Your task to perform on an android device: turn off javascript in the chrome app Image 0: 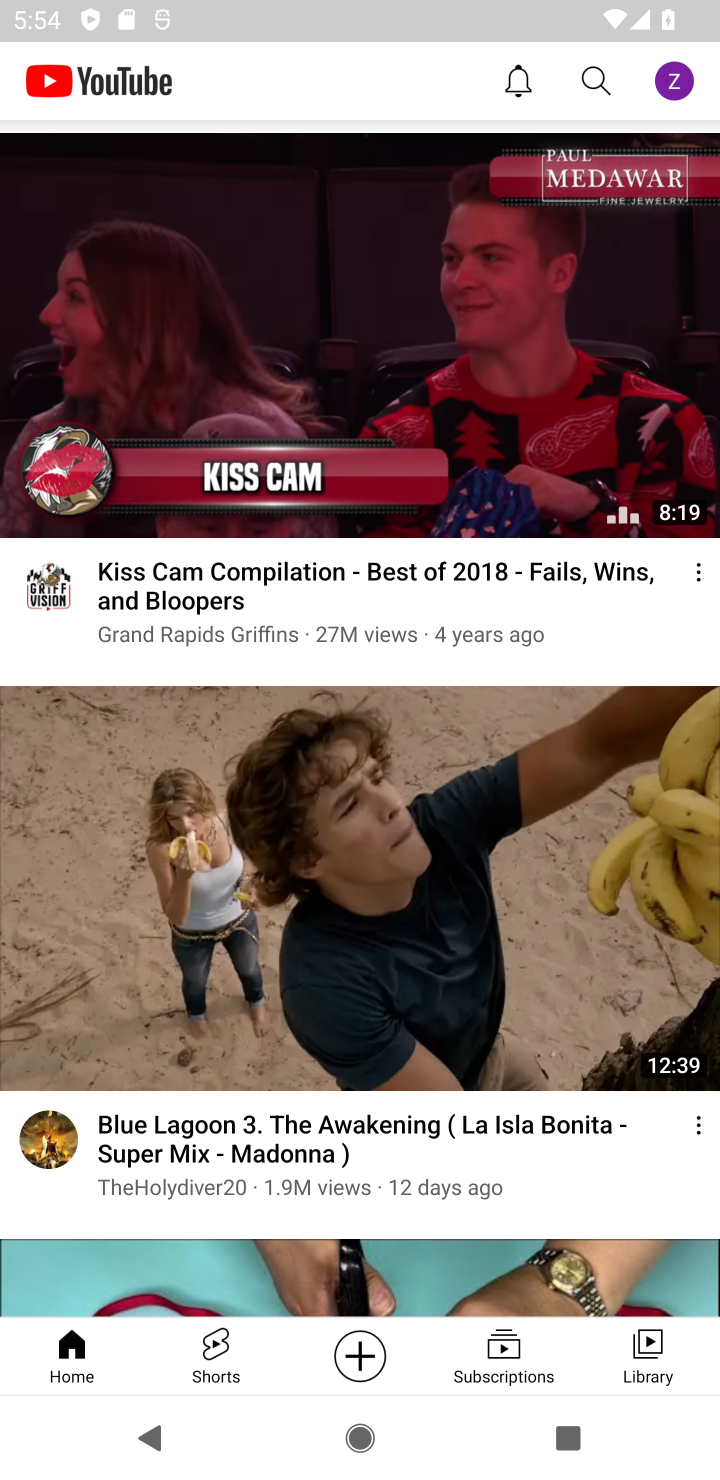
Step 0: press home button
Your task to perform on an android device: turn off javascript in the chrome app Image 1: 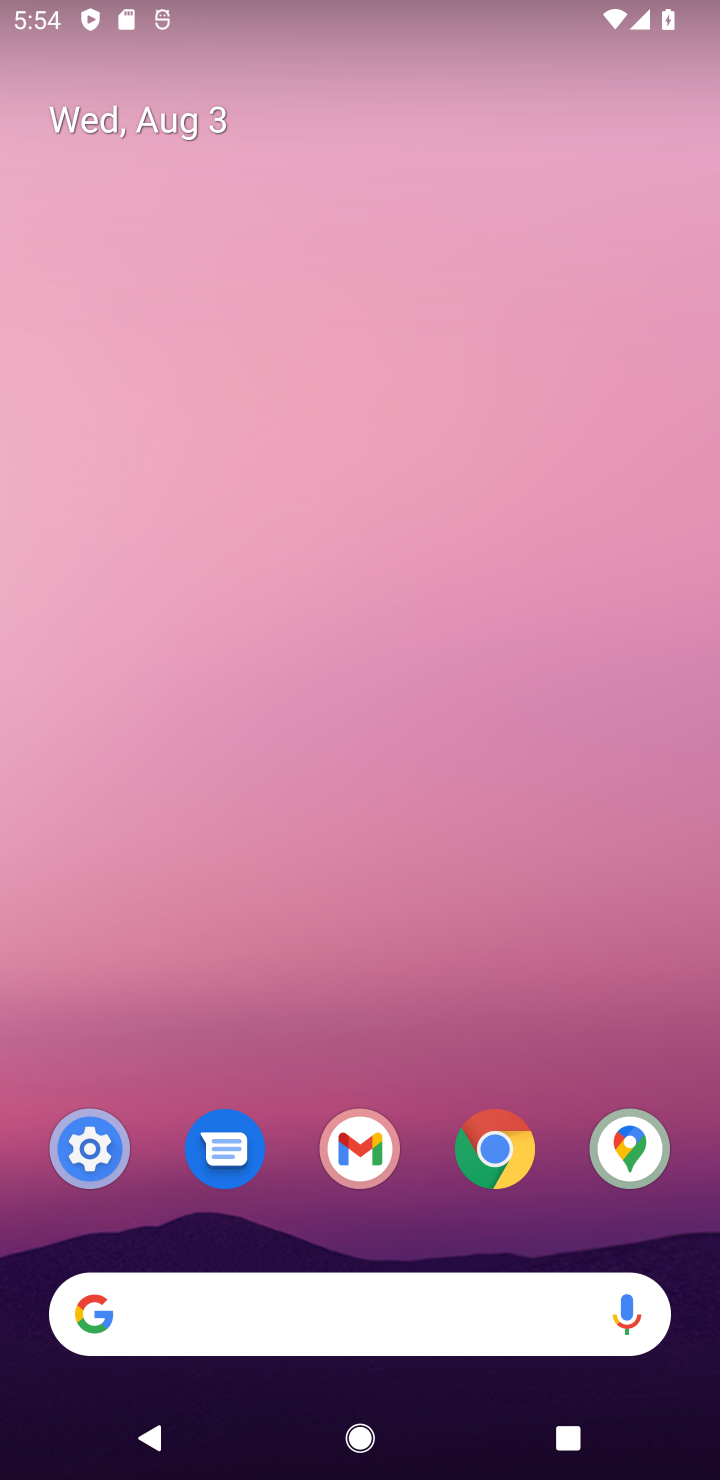
Step 1: click (501, 1156)
Your task to perform on an android device: turn off javascript in the chrome app Image 2: 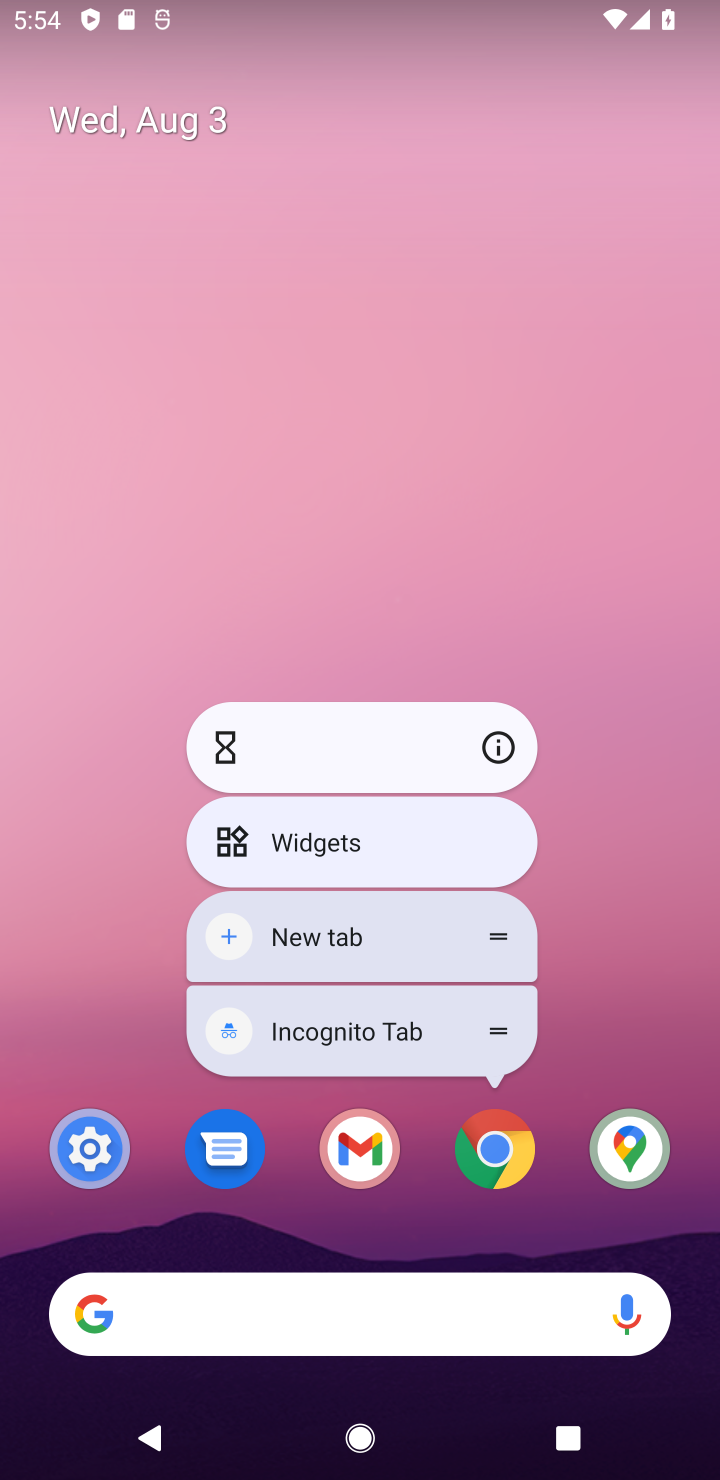
Step 2: click (519, 1172)
Your task to perform on an android device: turn off javascript in the chrome app Image 3: 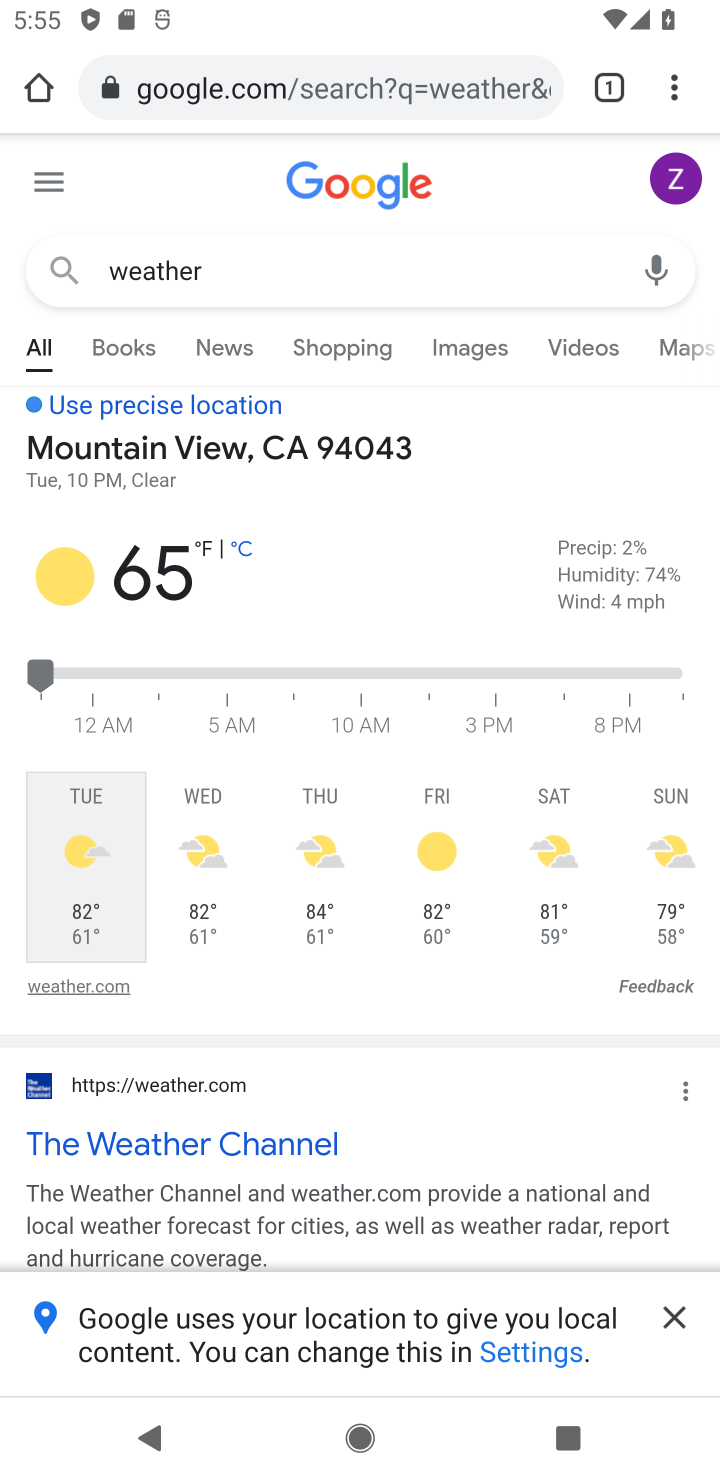
Step 3: drag from (684, 79) to (422, 1073)
Your task to perform on an android device: turn off javascript in the chrome app Image 4: 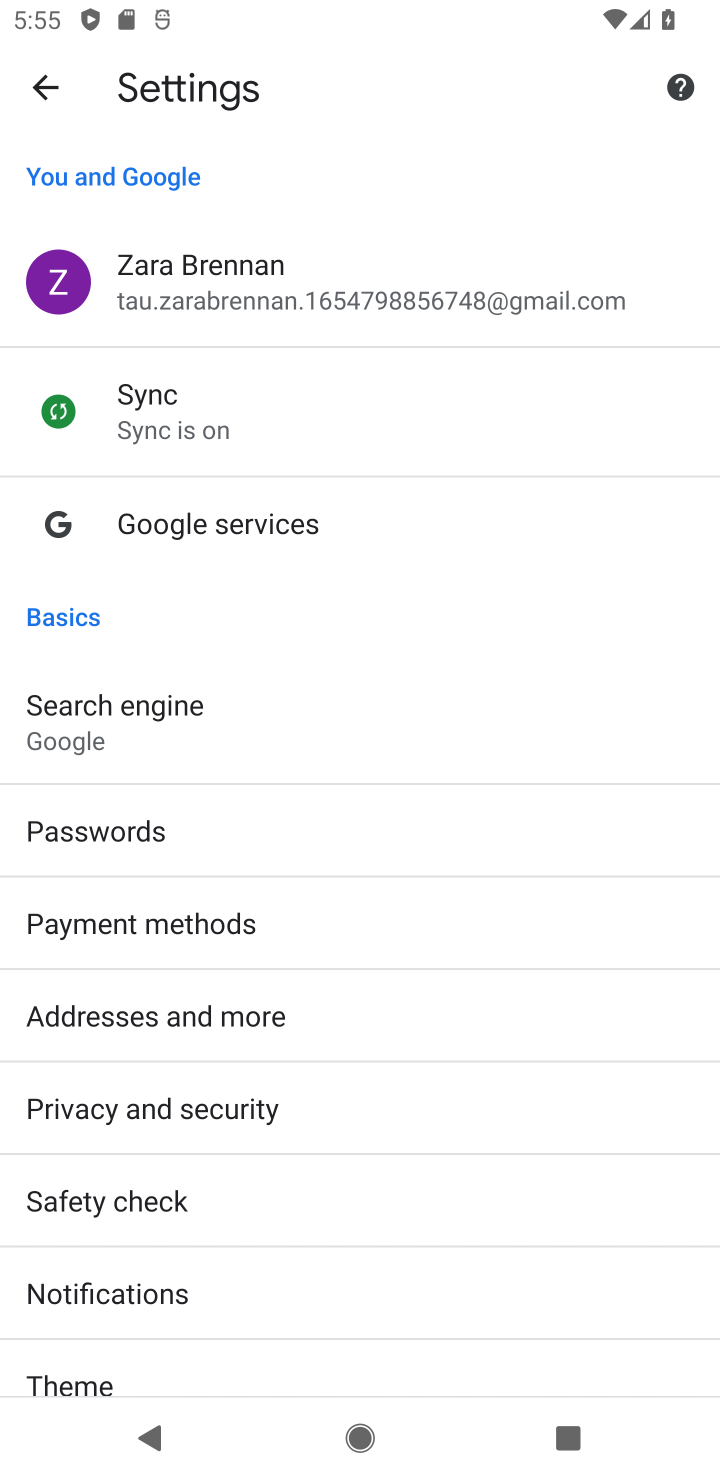
Step 4: drag from (226, 1155) to (56, 0)
Your task to perform on an android device: turn off javascript in the chrome app Image 5: 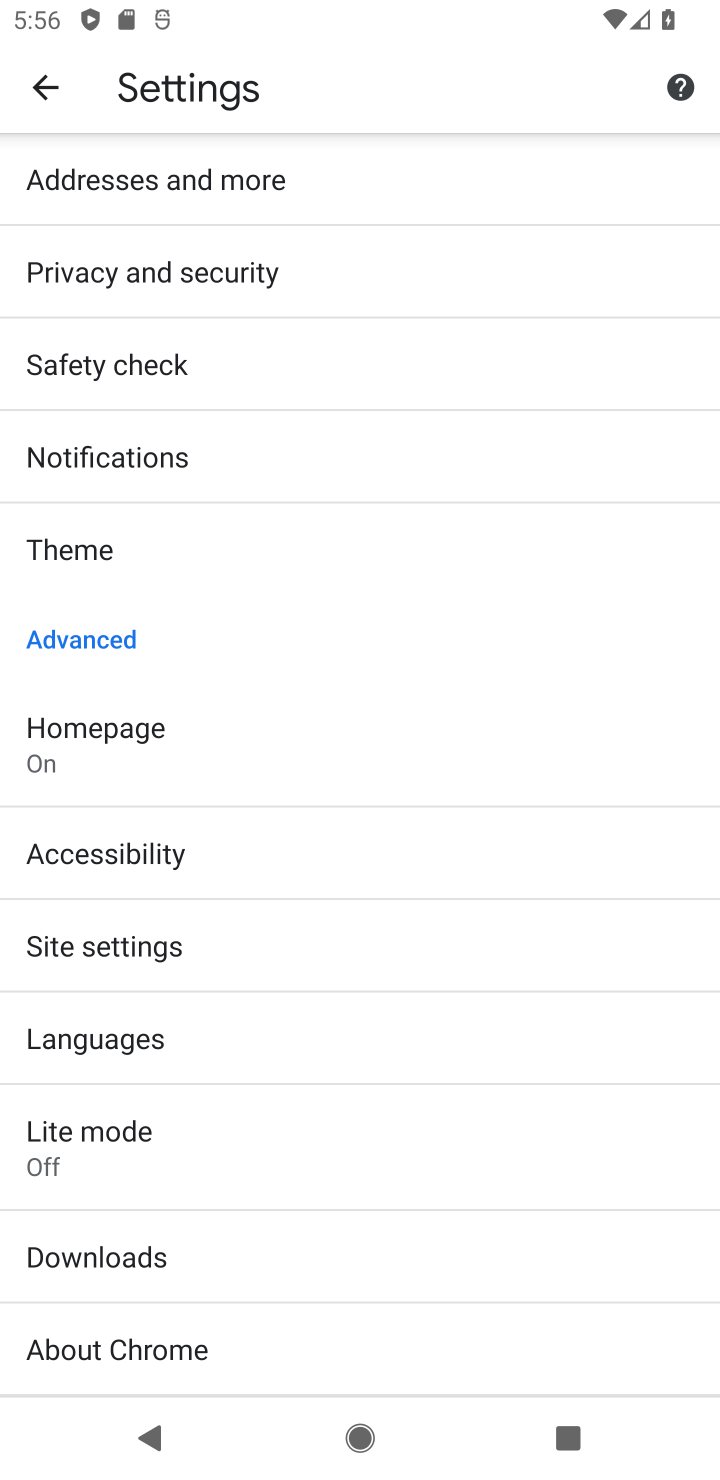
Step 5: click (163, 939)
Your task to perform on an android device: turn off javascript in the chrome app Image 6: 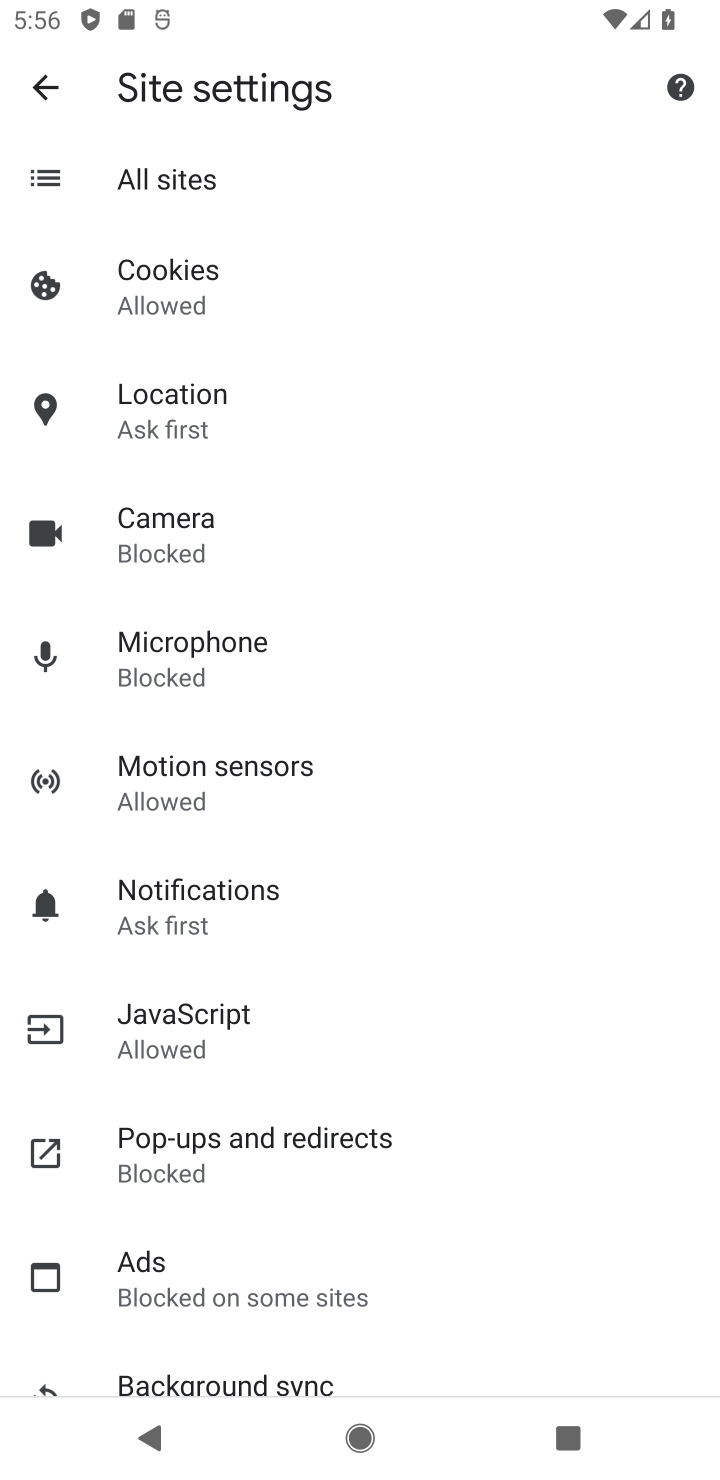
Step 6: click (184, 1030)
Your task to perform on an android device: turn off javascript in the chrome app Image 7: 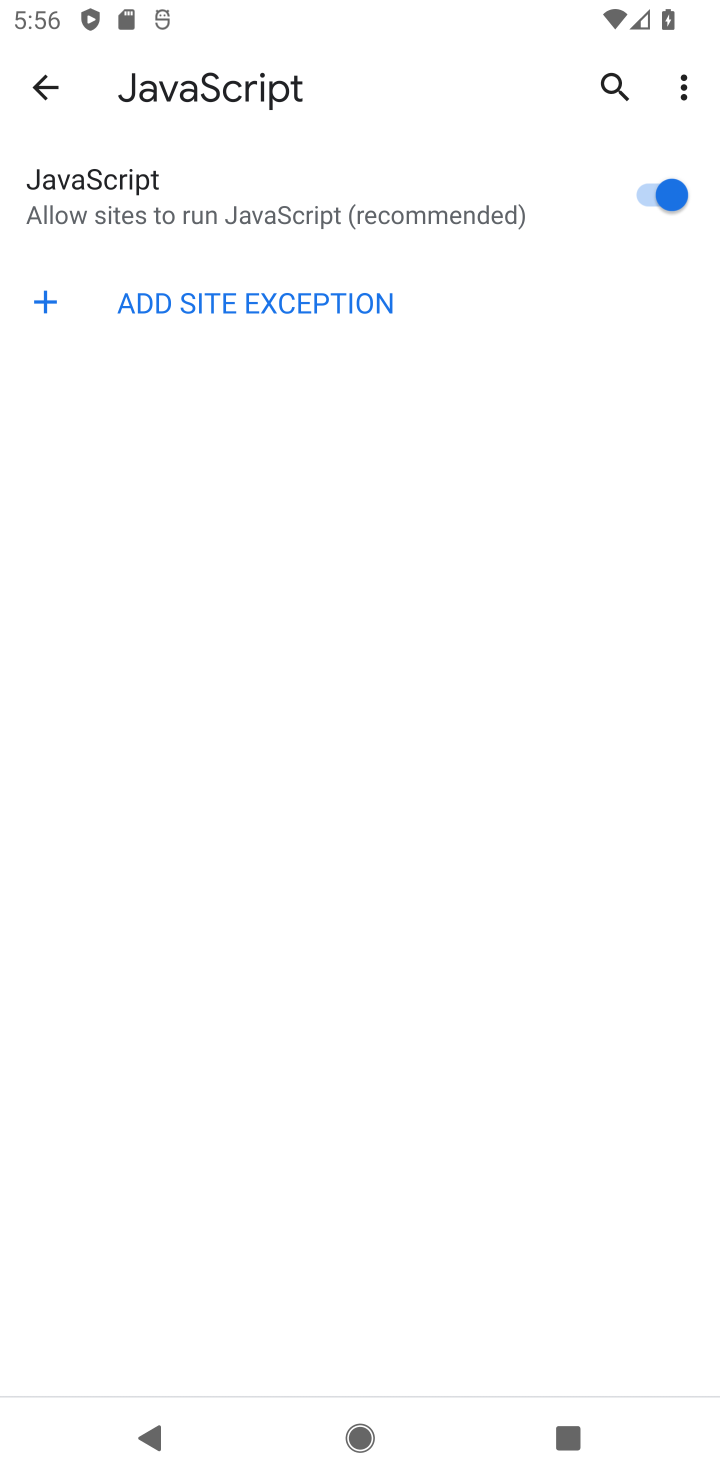
Step 7: click (646, 214)
Your task to perform on an android device: turn off javascript in the chrome app Image 8: 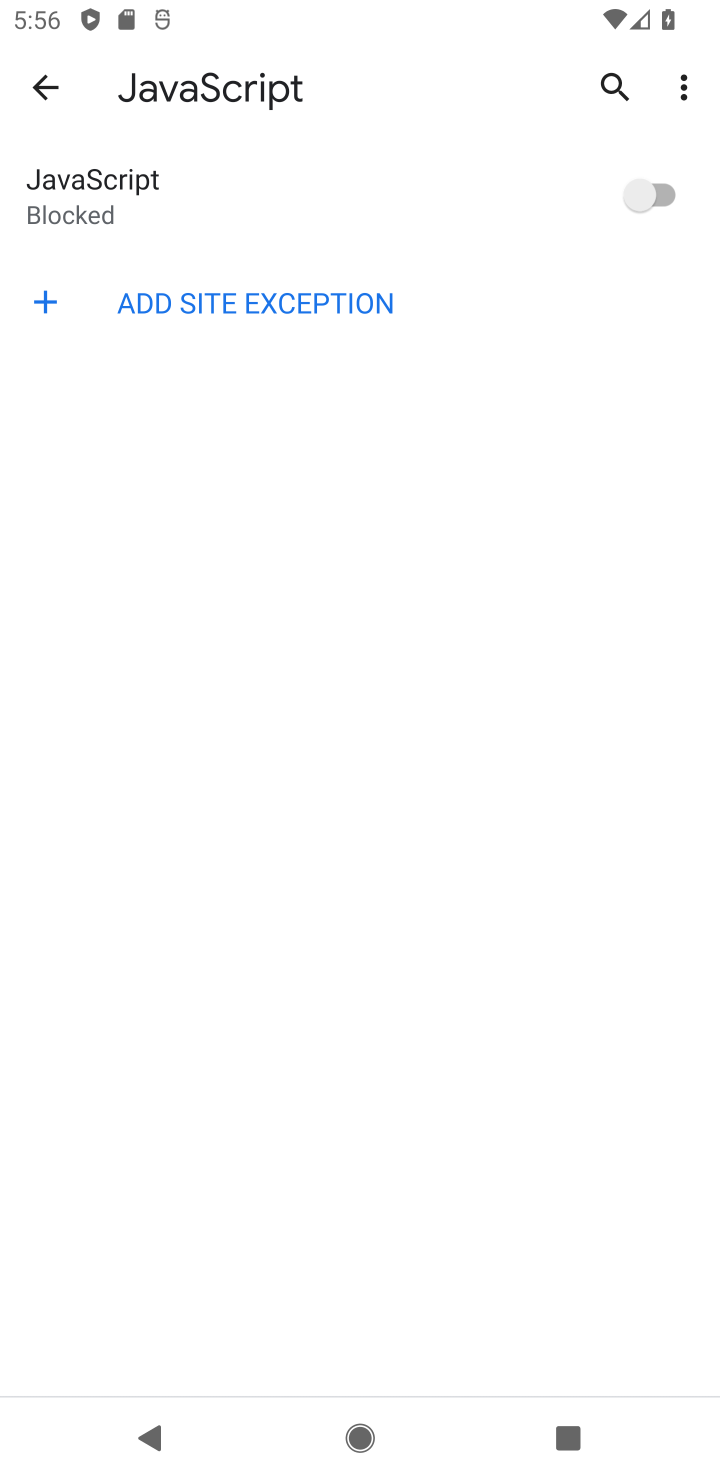
Step 8: task complete